Your task to perform on an android device: change text size in settings app Image 0: 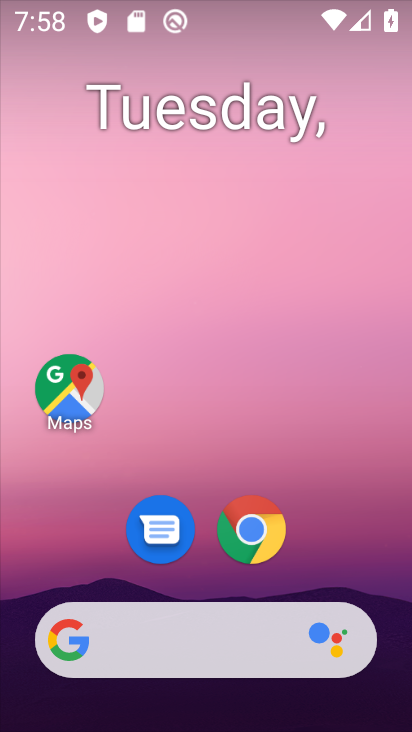
Step 0: drag from (214, 585) to (278, 230)
Your task to perform on an android device: change text size in settings app Image 1: 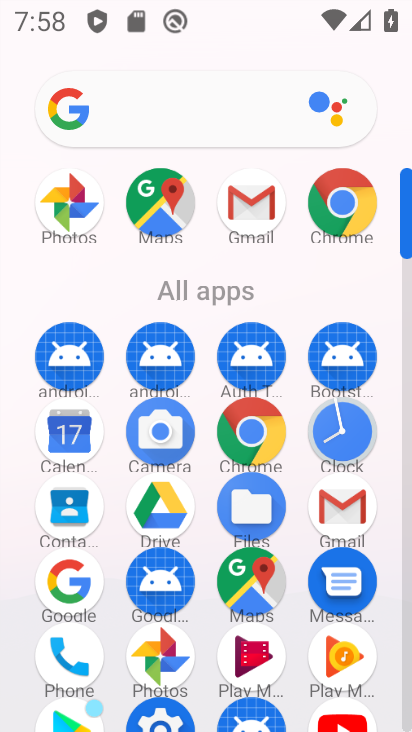
Step 1: drag from (211, 626) to (250, 389)
Your task to perform on an android device: change text size in settings app Image 2: 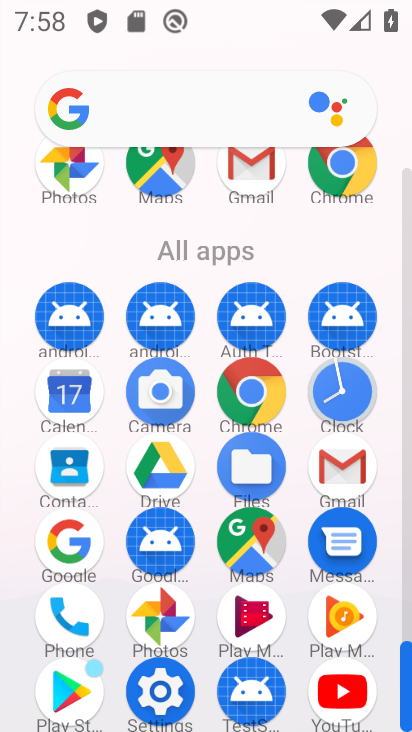
Step 2: click (162, 689)
Your task to perform on an android device: change text size in settings app Image 3: 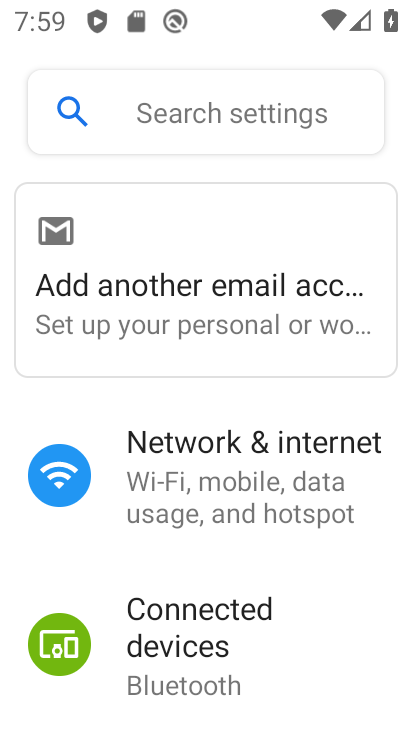
Step 3: drag from (238, 572) to (270, 271)
Your task to perform on an android device: change text size in settings app Image 4: 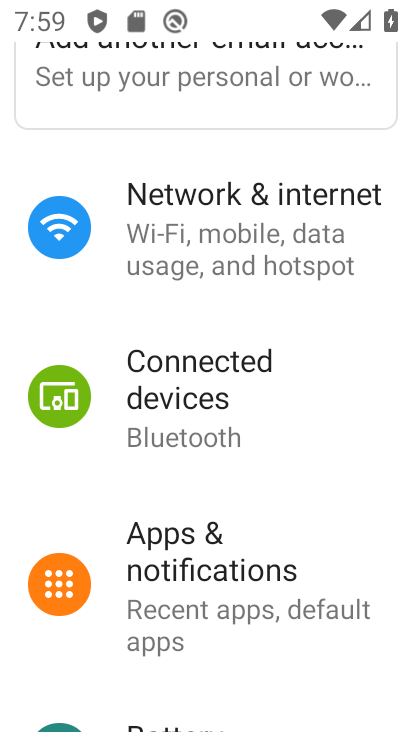
Step 4: drag from (218, 643) to (305, 228)
Your task to perform on an android device: change text size in settings app Image 5: 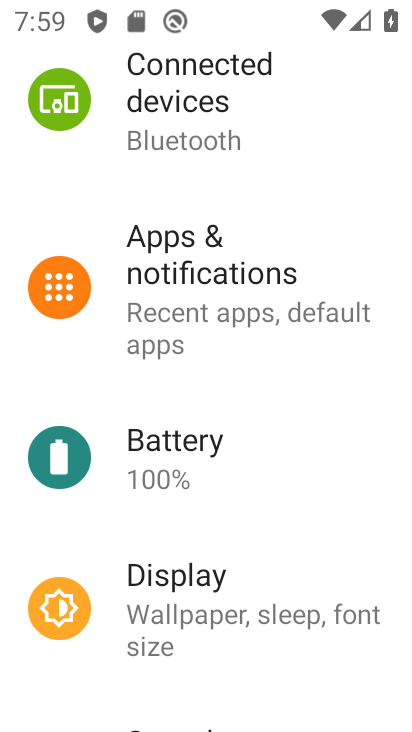
Step 5: click (196, 609)
Your task to perform on an android device: change text size in settings app Image 6: 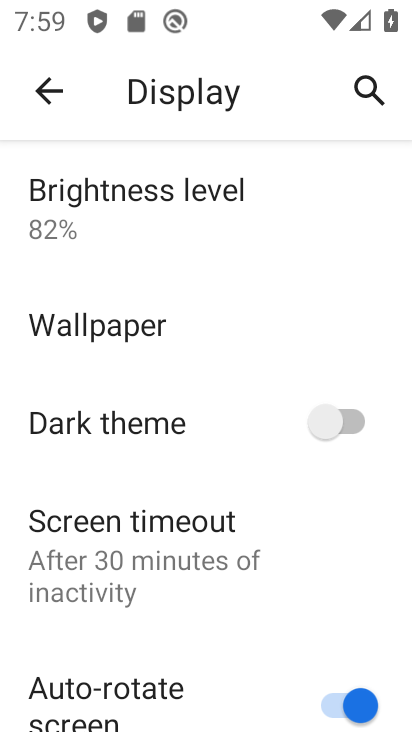
Step 6: drag from (192, 608) to (247, 348)
Your task to perform on an android device: change text size in settings app Image 7: 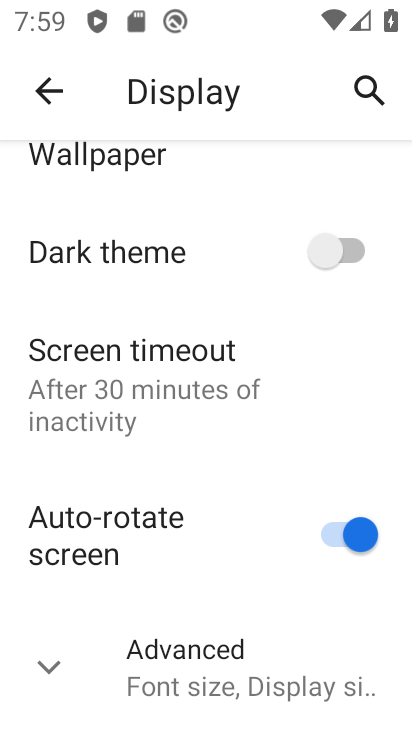
Step 7: click (46, 647)
Your task to perform on an android device: change text size in settings app Image 8: 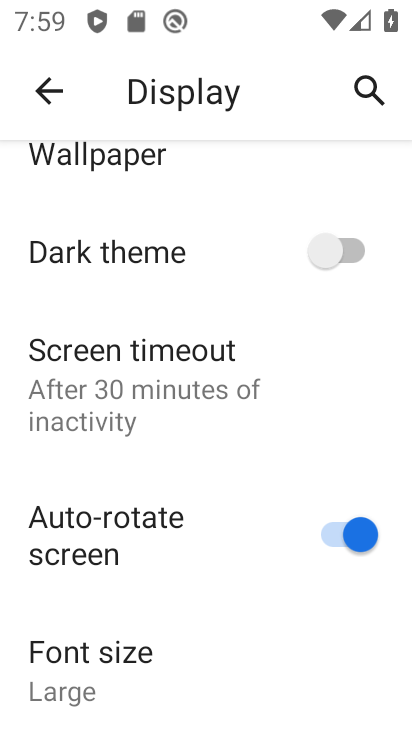
Step 8: click (65, 678)
Your task to perform on an android device: change text size in settings app Image 9: 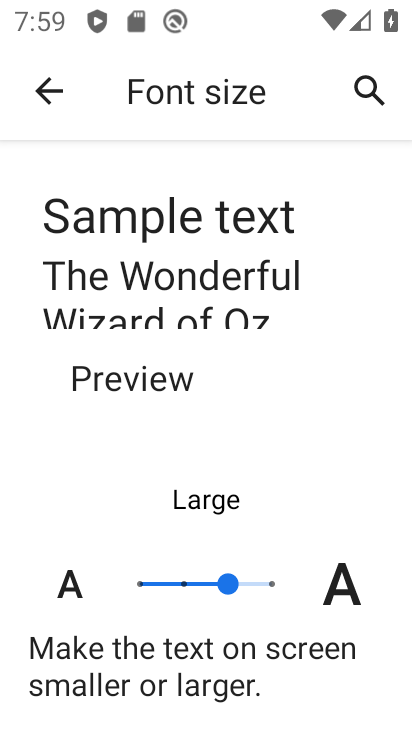
Step 9: click (197, 572)
Your task to perform on an android device: change text size in settings app Image 10: 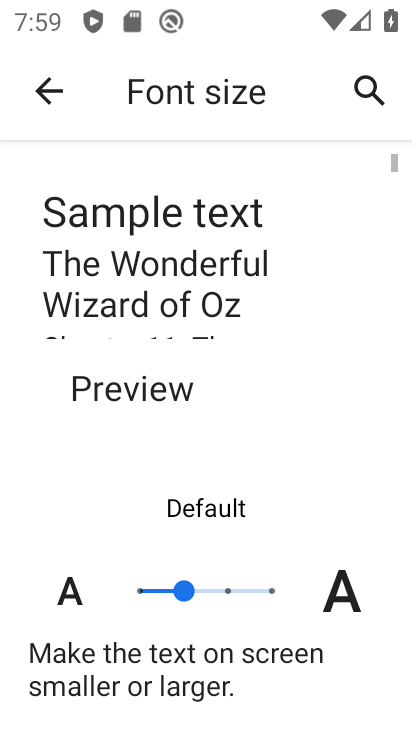
Step 10: task complete